Your task to perform on an android device: Clear the shopping cart on amazon.com. Add "usb-c to usb-a" to the cart on amazon.com, then select checkout. Image 0: 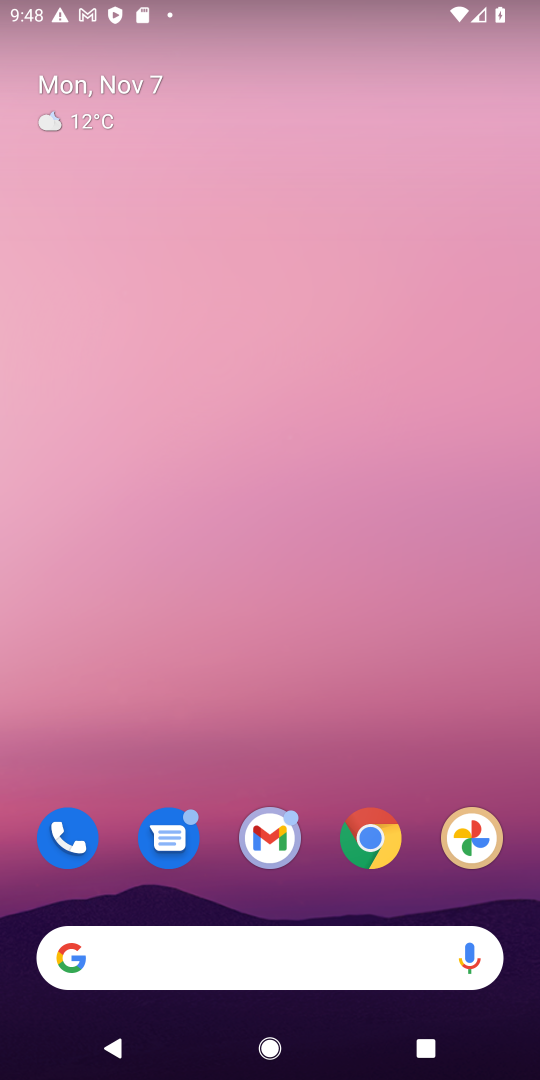
Step 0: click (362, 839)
Your task to perform on an android device: Clear the shopping cart on amazon.com. Add "usb-c to usb-a" to the cart on amazon.com, then select checkout. Image 1: 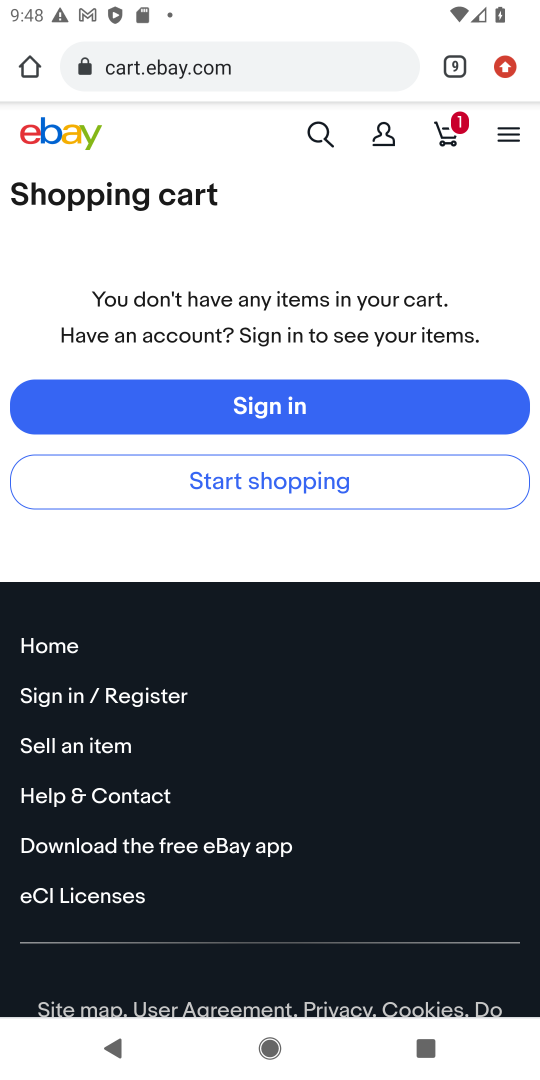
Step 1: click (453, 61)
Your task to perform on an android device: Clear the shopping cart on amazon.com. Add "usb-c to usb-a" to the cart on amazon.com, then select checkout. Image 2: 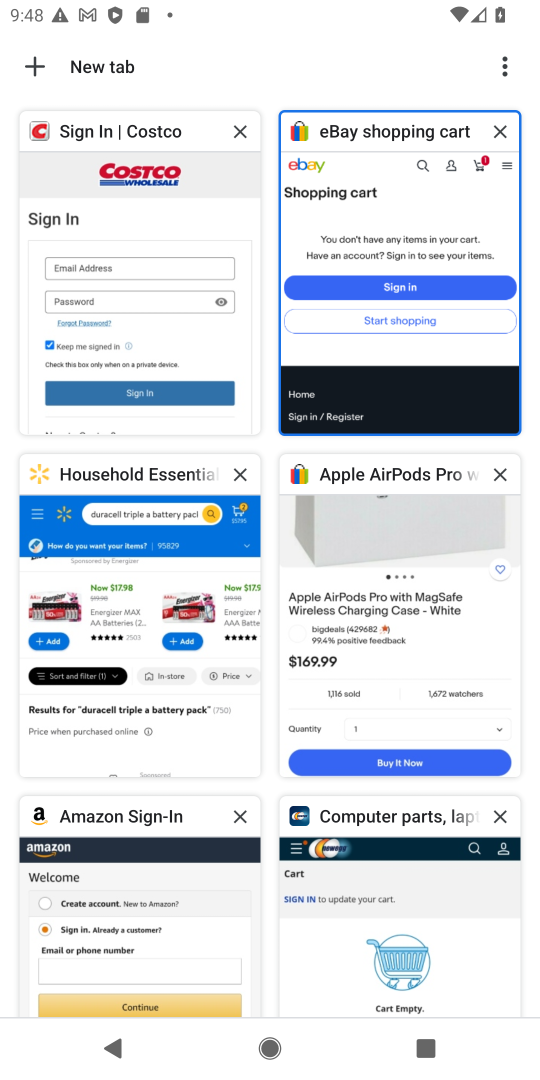
Step 2: click (163, 883)
Your task to perform on an android device: Clear the shopping cart on amazon.com. Add "usb-c to usb-a" to the cart on amazon.com, then select checkout. Image 3: 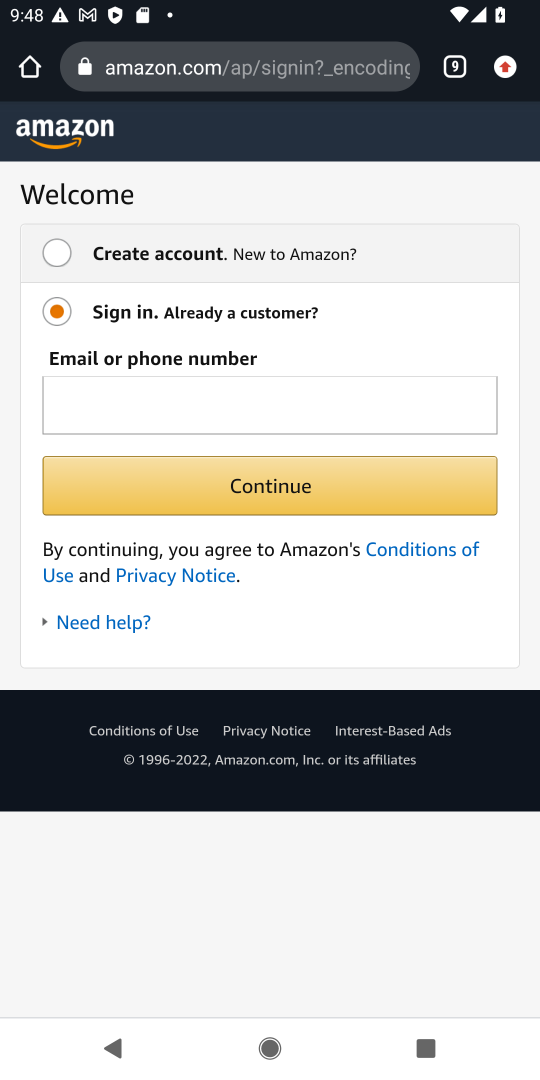
Step 3: press back button
Your task to perform on an android device: Clear the shopping cart on amazon.com. Add "usb-c to usb-a" to the cart on amazon.com, then select checkout. Image 4: 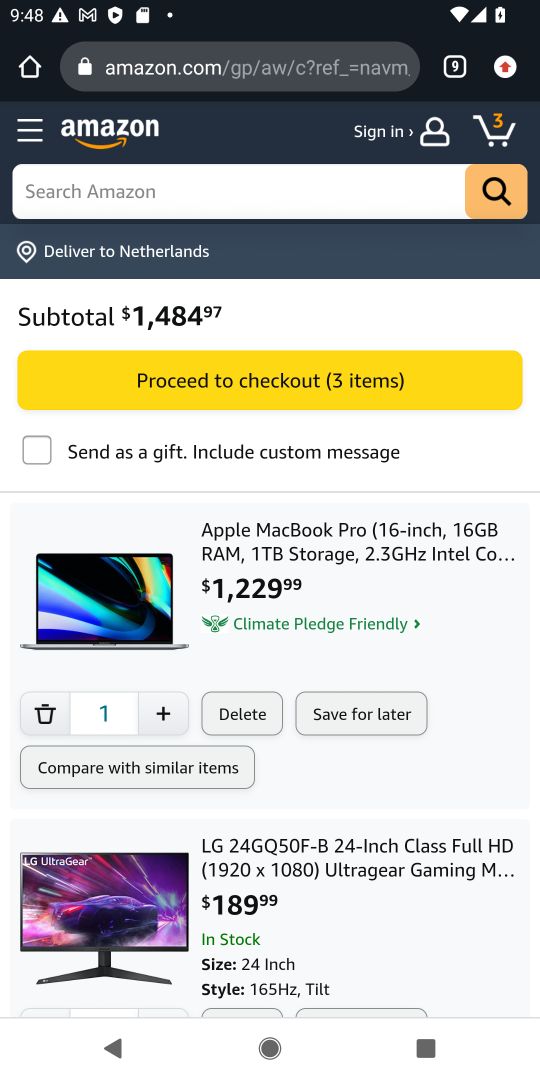
Step 4: click (184, 190)
Your task to perform on an android device: Clear the shopping cart on amazon.com. Add "usb-c to usb-a" to the cart on amazon.com, then select checkout. Image 5: 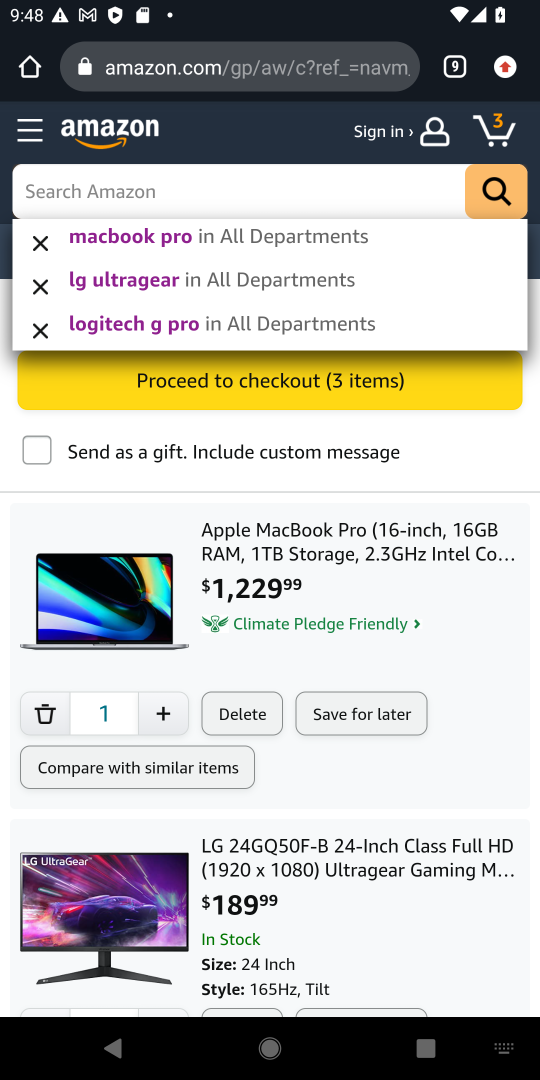
Step 5: type "usb-c to usb-a"
Your task to perform on an android device: Clear the shopping cart on amazon.com. Add "usb-c to usb-a" to the cart on amazon.com, then select checkout. Image 6: 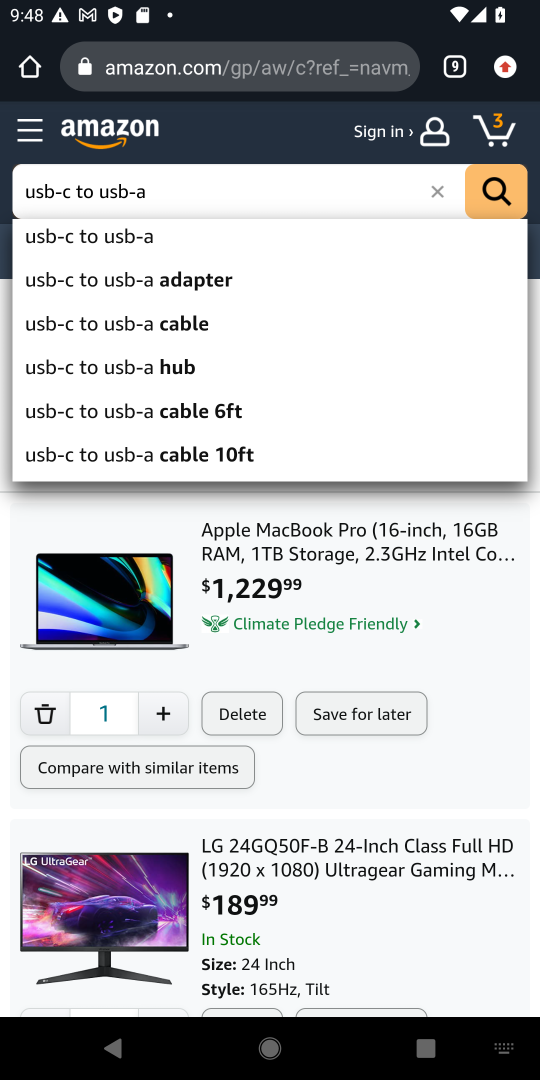
Step 6: click (60, 233)
Your task to perform on an android device: Clear the shopping cart on amazon.com. Add "usb-c to usb-a" to the cart on amazon.com, then select checkout. Image 7: 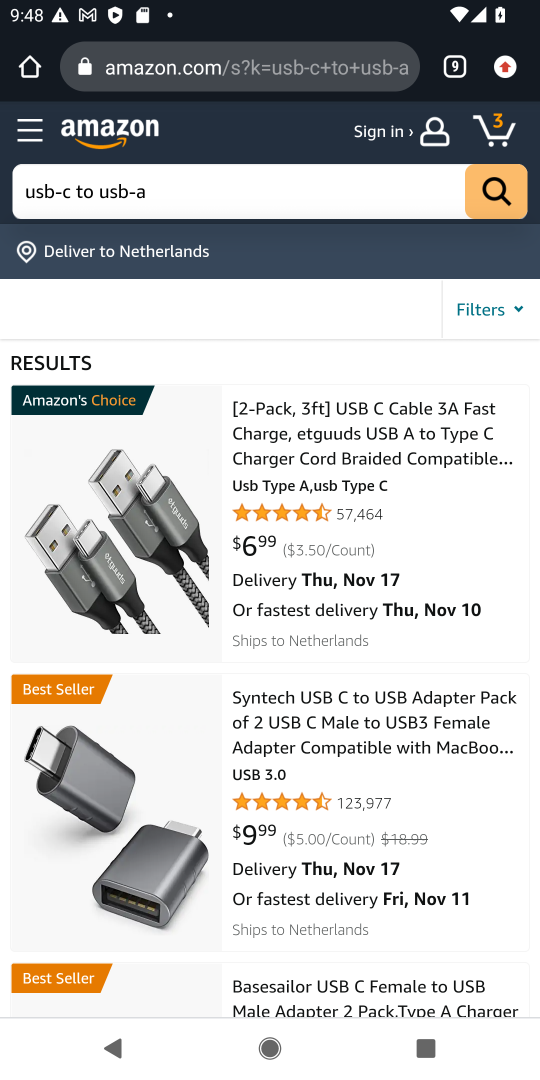
Step 7: click (334, 452)
Your task to perform on an android device: Clear the shopping cart on amazon.com. Add "usb-c to usb-a" to the cart on amazon.com, then select checkout. Image 8: 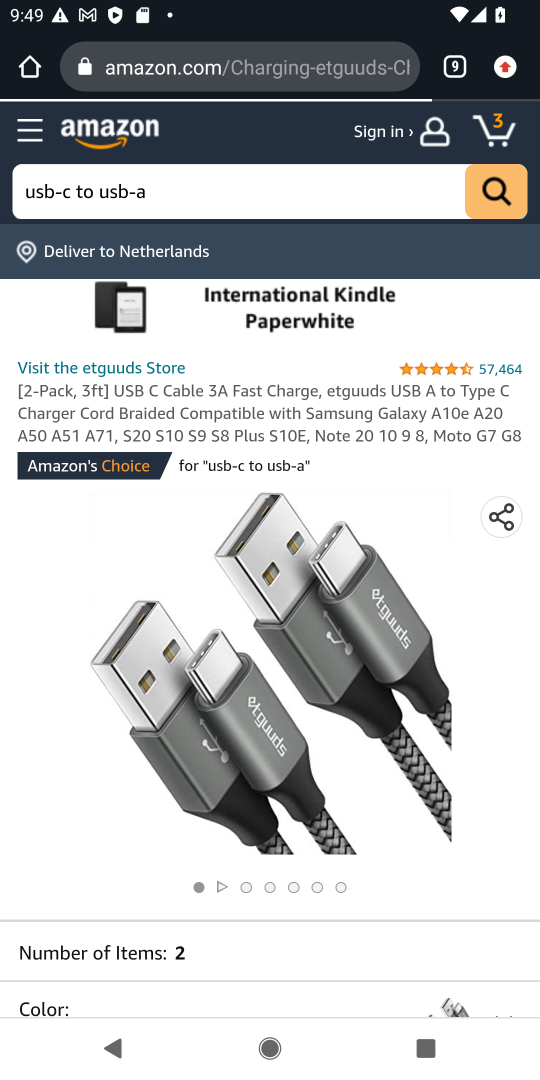
Step 8: drag from (53, 885) to (127, 417)
Your task to perform on an android device: Clear the shopping cart on amazon.com. Add "usb-c to usb-a" to the cart on amazon.com, then select checkout. Image 9: 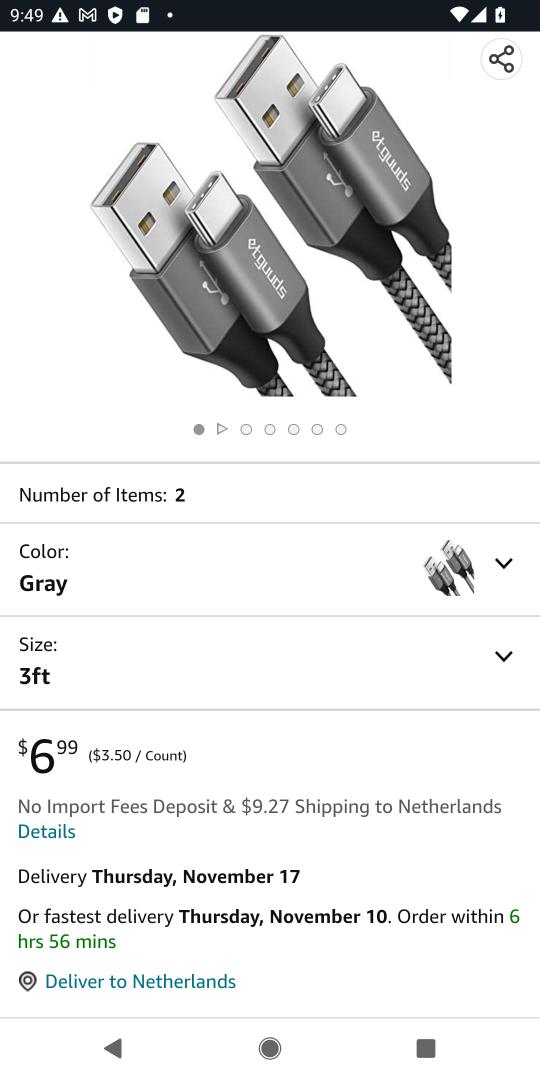
Step 9: drag from (301, 762) to (327, 160)
Your task to perform on an android device: Clear the shopping cart on amazon.com. Add "usb-c to usb-a" to the cart on amazon.com, then select checkout. Image 10: 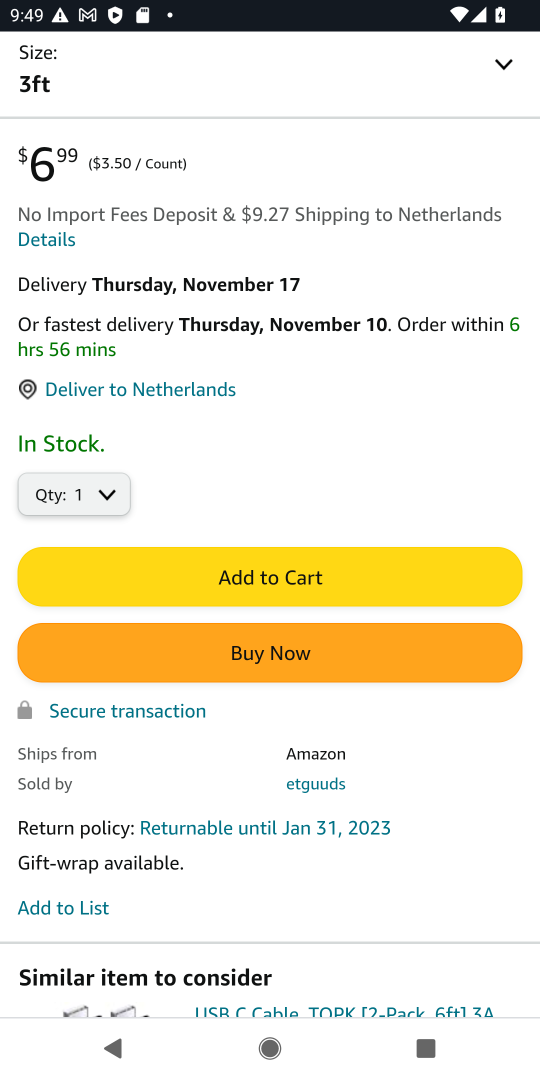
Step 10: click (325, 570)
Your task to perform on an android device: Clear the shopping cart on amazon.com. Add "usb-c to usb-a" to the cart on amazon.com, then select checkout. Image 11: 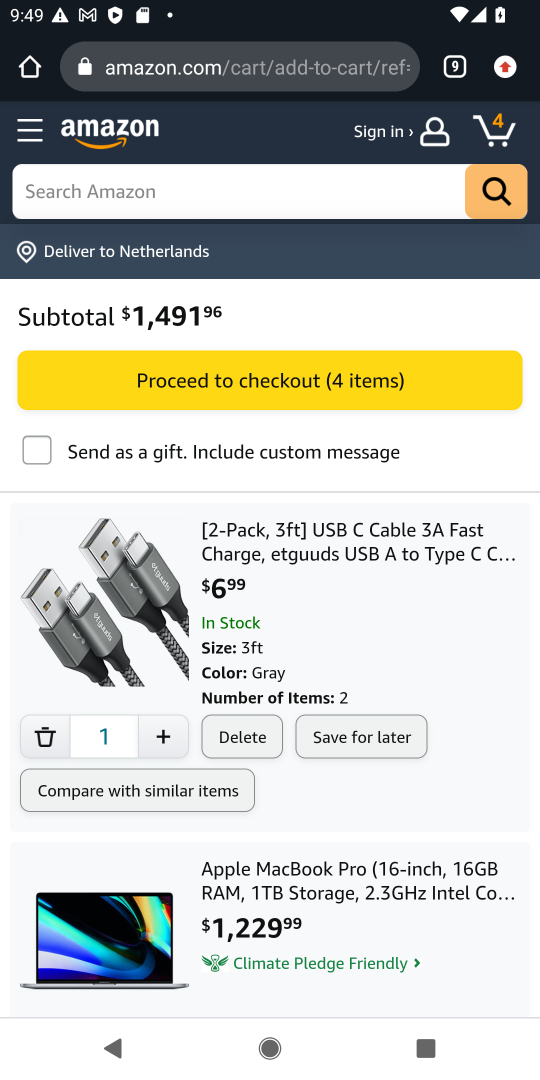
Step 11: click (341, 383)
Your task to perform on an android device: Clear the shopping cart on amazon.com. Add "usb-c to usb-a" to the cart on amazon.com, then select checkout. Image 12: 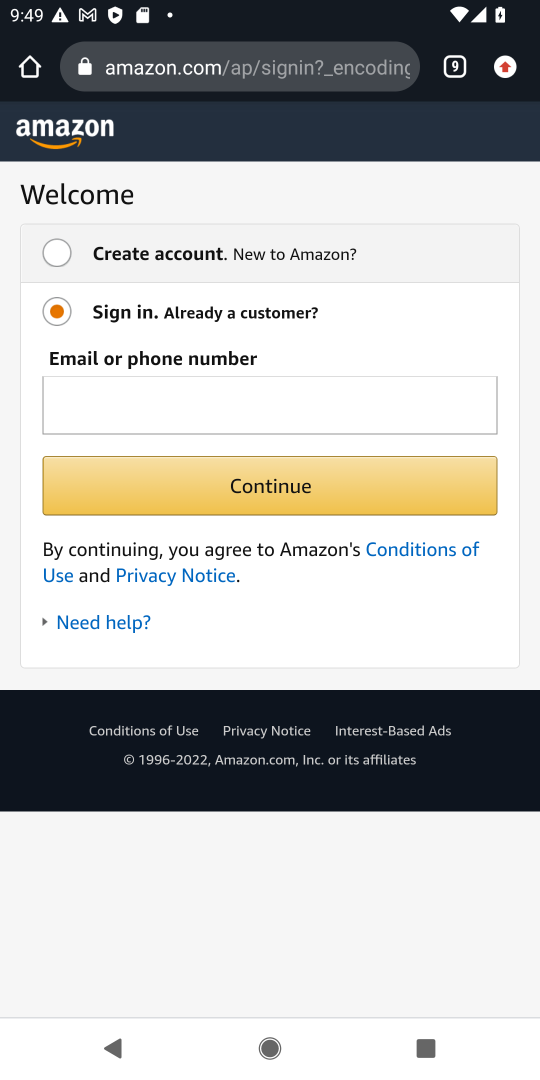
Step 12: task complete